Your task to perform on an android device: Find coffee shops on Maps Image 0: 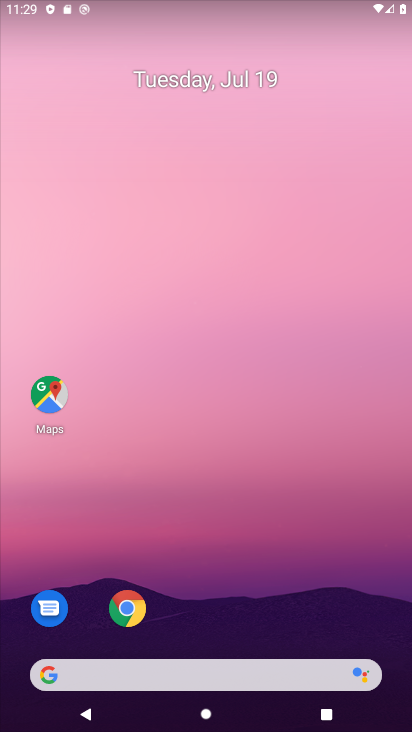
Step 0: click (55, 399)
Your task to perform on an android device: Find coffee shops on Maps Image 1: 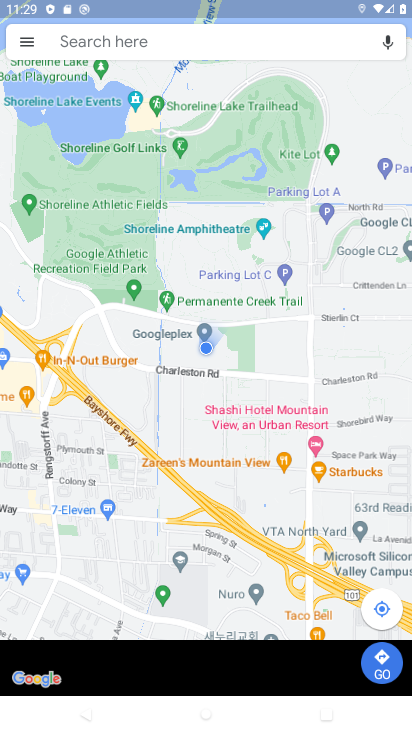
Step 1: click (222, 47)
Your task to perform on an android device: Find coffee shops on Maps Image 2: 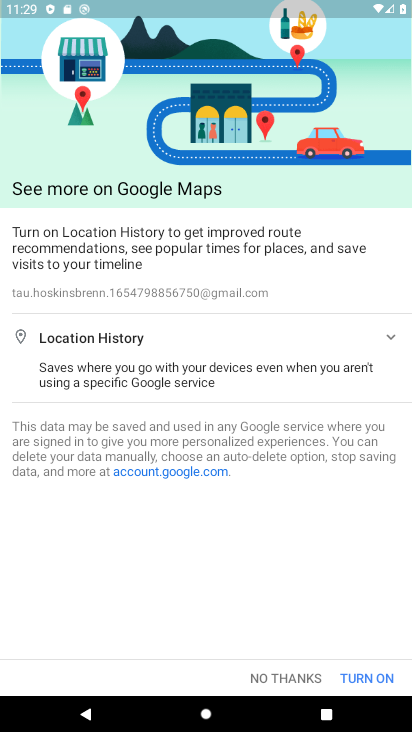
Step 2: click (282, 677)
Your task to perform on an android device: Find coffee shops on Maps Image 3: 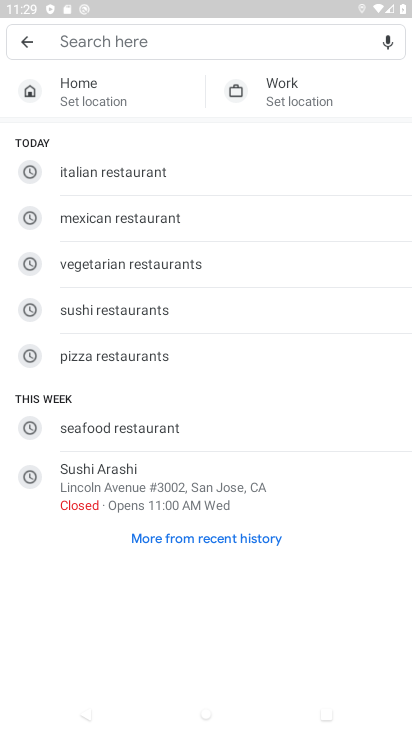
Step 3: click (173, 33)
Your task to perform on an android device: Find coffee shops on Maps Image 4: 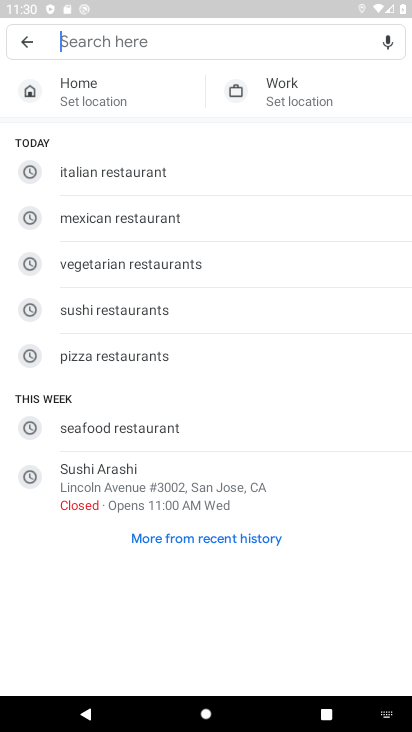
Step 4: type "coffee"
Your task to perform on an android device: Find coffee shops on Maps Image 5: 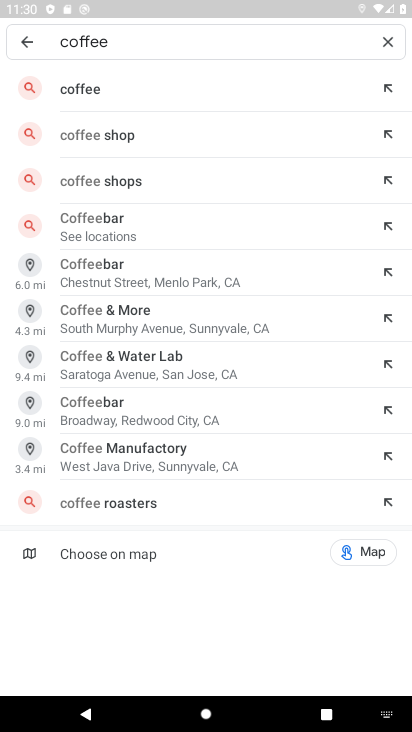
Step 5: click (83, 86)
Your task to perform on an android device: Find coffee shops on Maps Image 6: 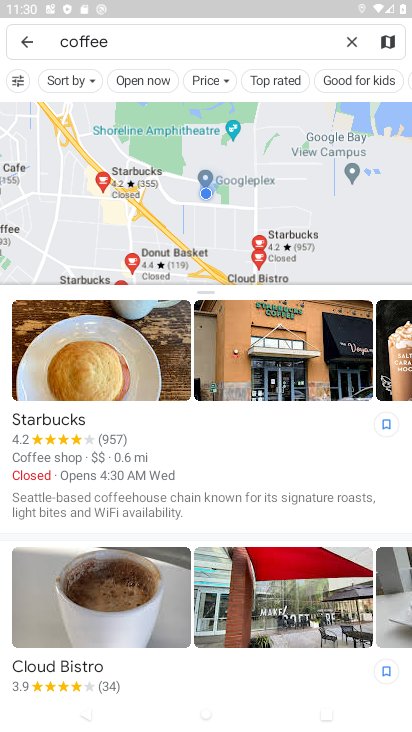
Step 6: task complete